Your task to perform on an android device: check out phone information Image 0: 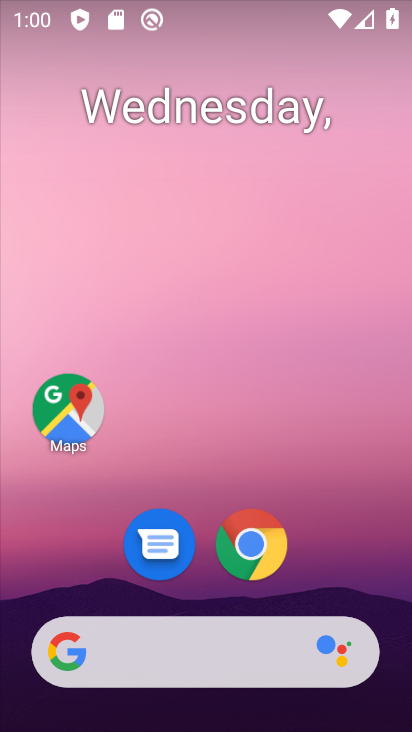
Step 0: drag from (322, 558) to (265, 174)
Your task to perform on an android device: check out phone information Image 1: 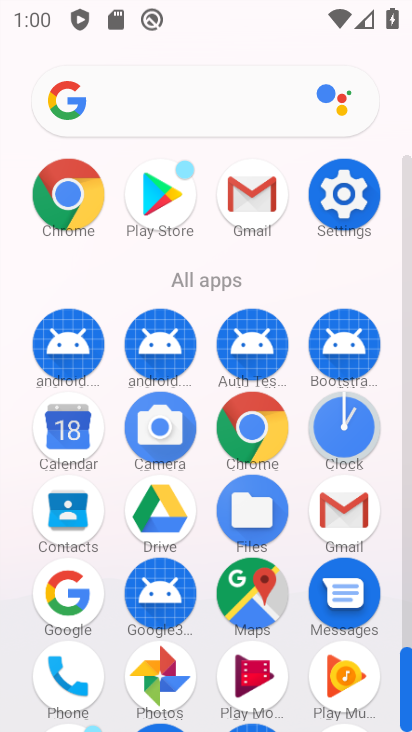
Step 1: click (353, 207)
Your task to perform on an android device: check out phone information Image 2: 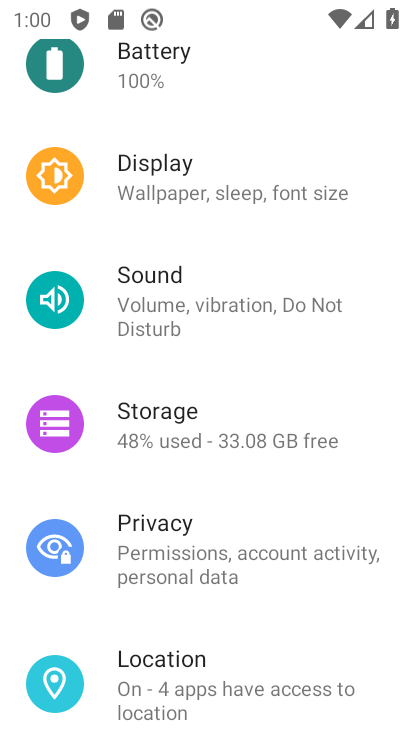
Step 2: drag from (291, 610) to (246, 267)
Your task to perform on an android device: check out phone information Image 3: 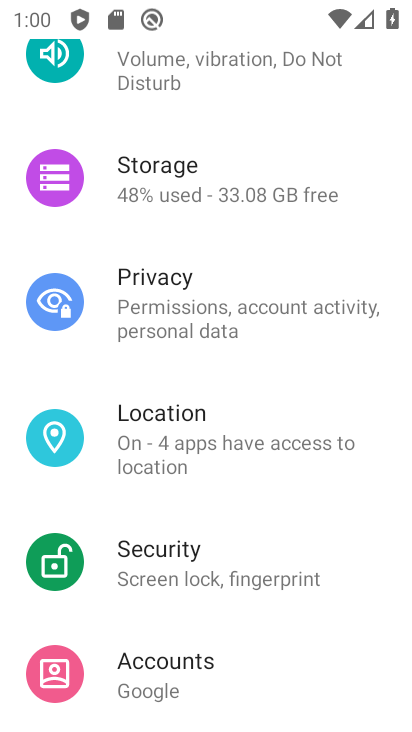
Step 3: drag from (240, 622) to (308, 230)
Your task to perform on an android device: check out phone information Image 4: 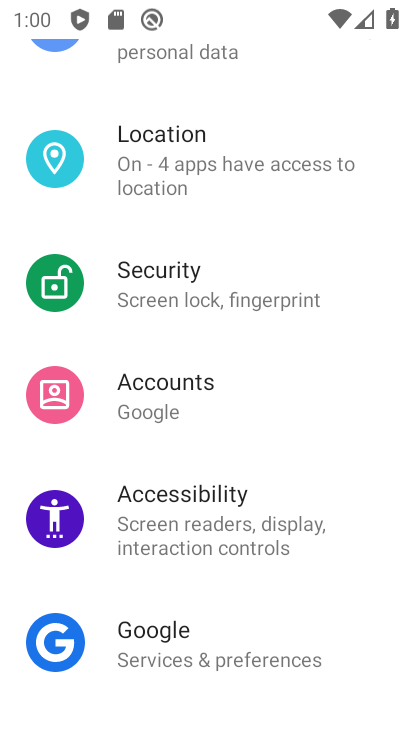
Step 4: drag from (273, 586) to (322, 123)
Your task to perform on an android device: check out phone information Image 5: 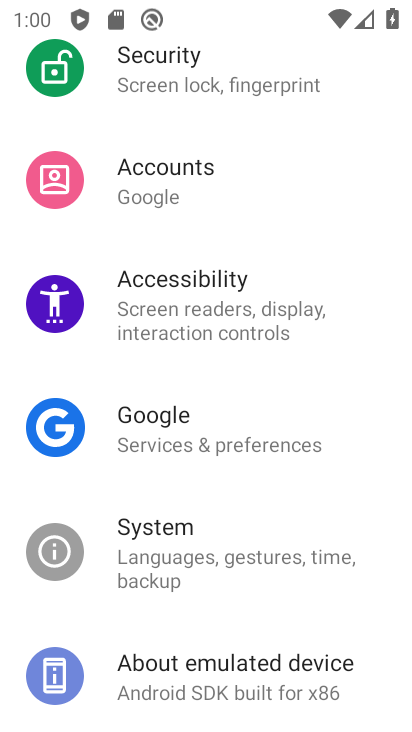
Step 5: click (261, 666)
Your task to perform on an android device: check out phone information Image 6: 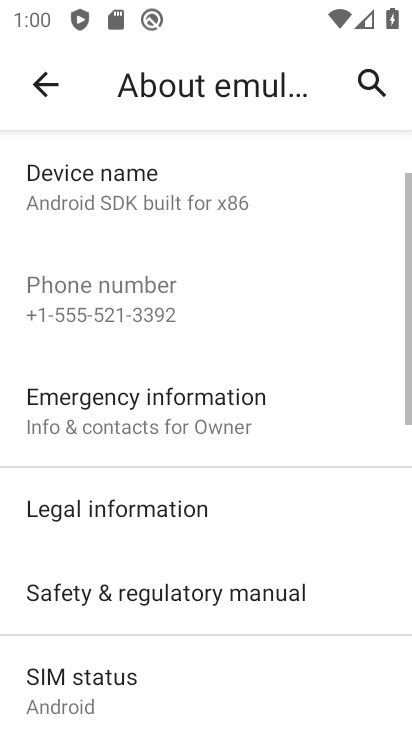
Step 6: drag from (281, 571) to (291, 258)
Your task to perform on an android device: check out phone information Image 7: 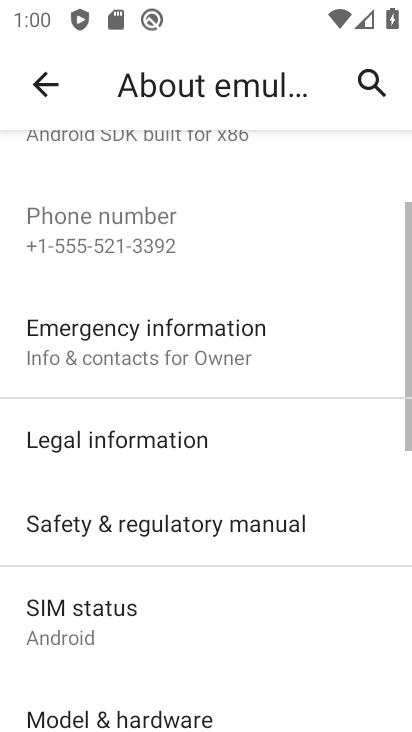
Step 7: drag from (263, 662) to (277, 304)
Your task to perform on an android device: check out phone information Image 8: 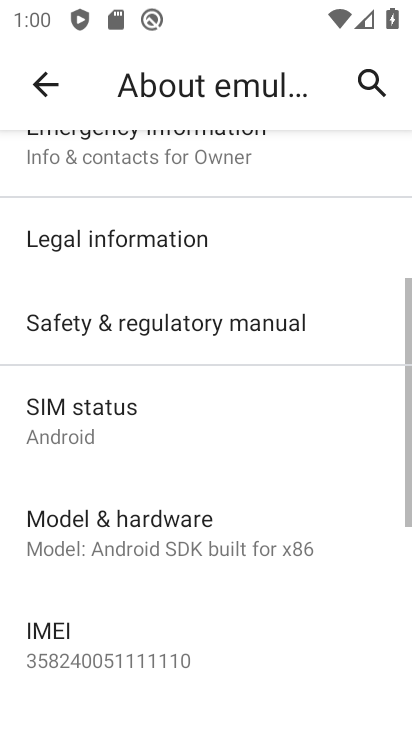
Step 8: drag from (224, 625) to (209, 260)
Your task to perform on an android device: check out phone information Image 9: 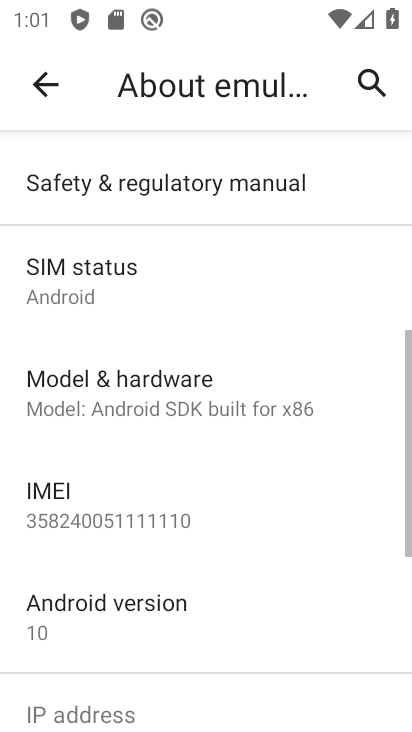
Step 9: click (173, 400)
Your task to perform on an android device: check out phone information Image 10: 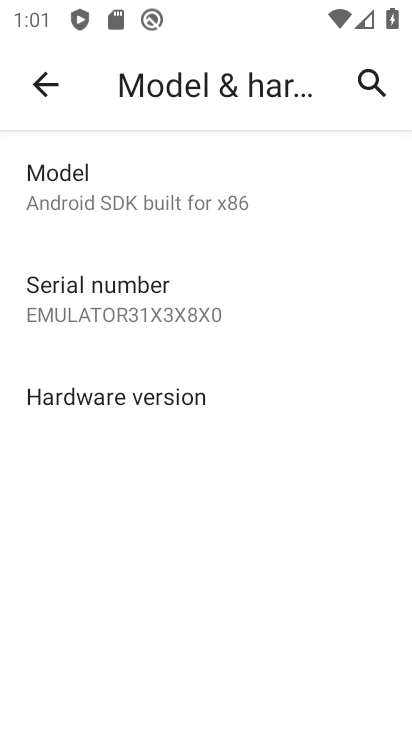
Step 10: task complete